Your task to perform on an android device: open a bookmark in the chrome app Image 0: 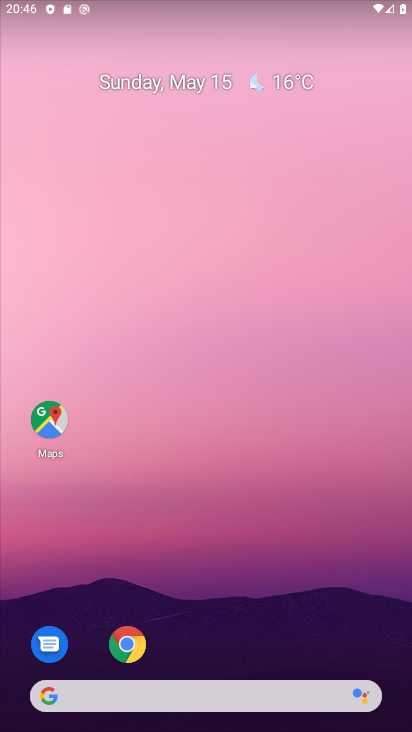
Step 0: click (127, 644)
Your task to perform on an android device: open a bookmark in the chrome app Image 1: 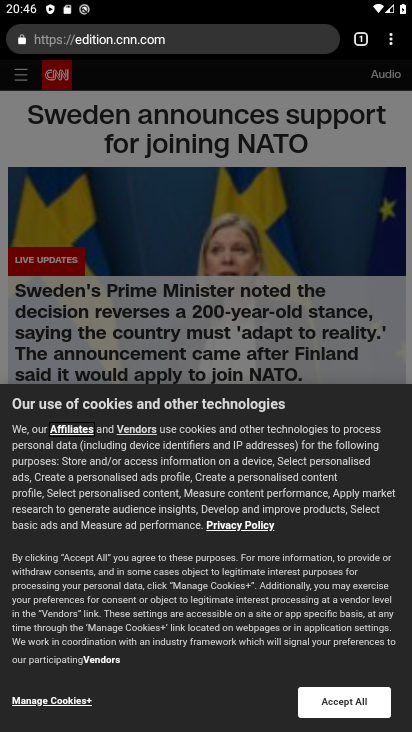
Step 1: click (349, 707)
Your task to perform on an android device: open a bookmark in the chrome app Image 2: 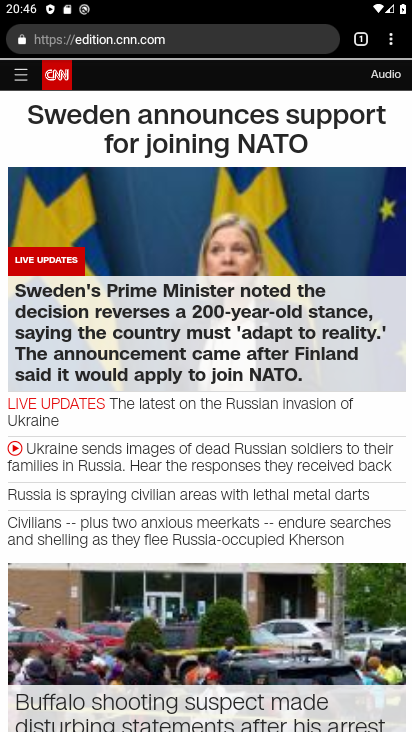
Step 2: drag from (387, 41) to (243, 147)
Your task to perform on an android device: open a bookmark in the chrome app Image 3: 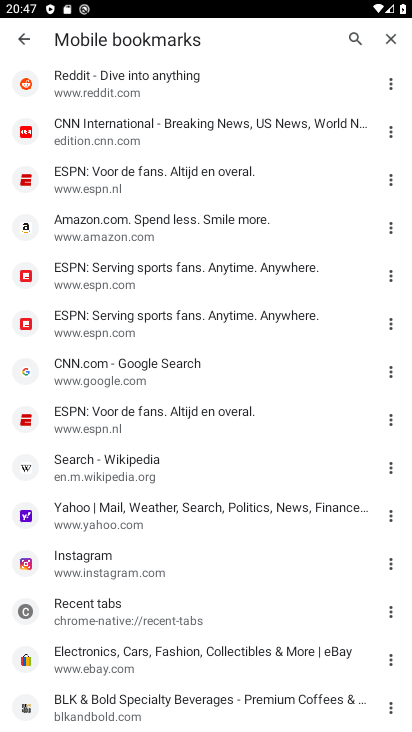
Step 3: click (111, 181)
Your task to perform on an android device: open a bookmark in the chrome app Image 4: 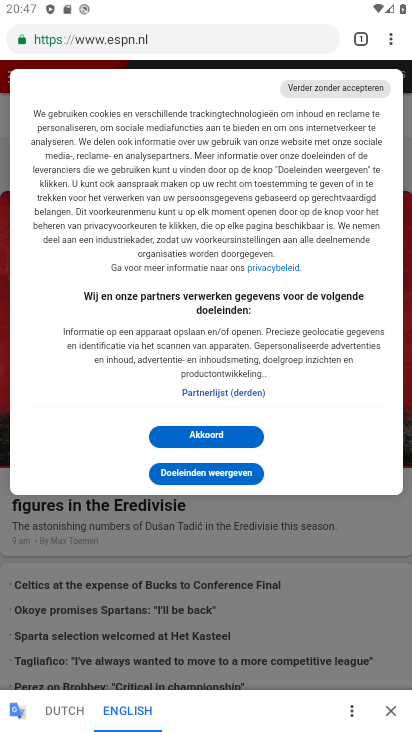
Step 4: task complete